Your task to perform on an android device: Open Google Chrome Image 0: 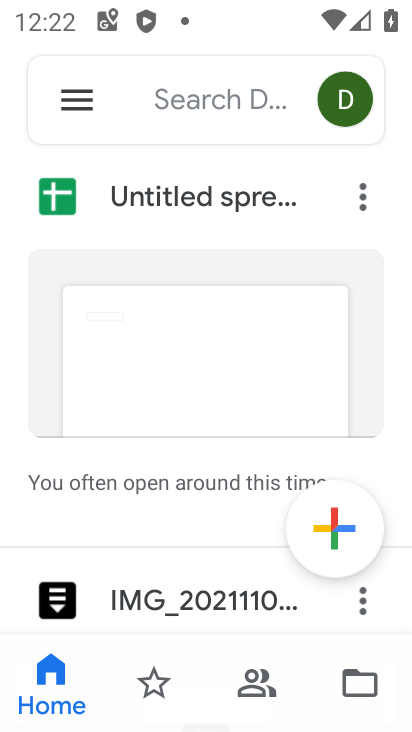
Step 0: press home button
Your task to perform on an android device: Open Google Chrome Image 1: 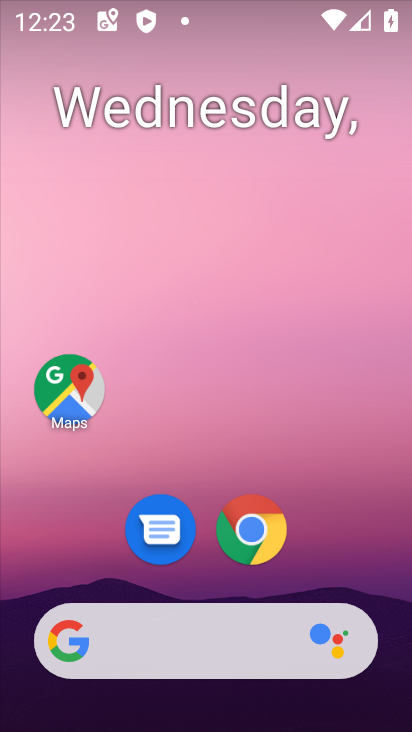
Step 1: click (254, 534)
Your task to perform on an android device: Open Google Chrome Image 2: 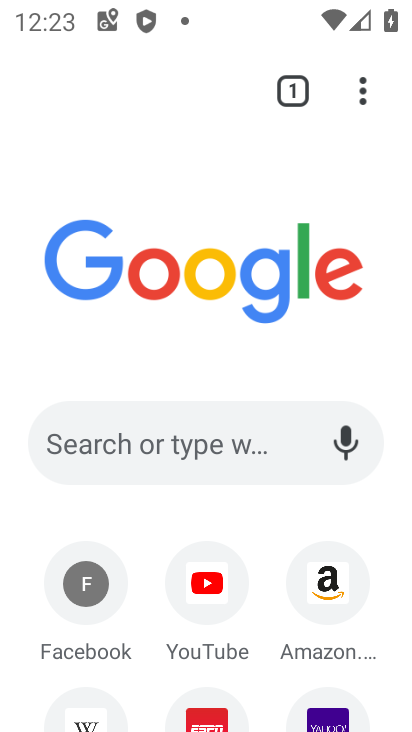
Step 2: task complete